Your task to perform on an android device: Set the phone to "Do not disturb". Image 0: 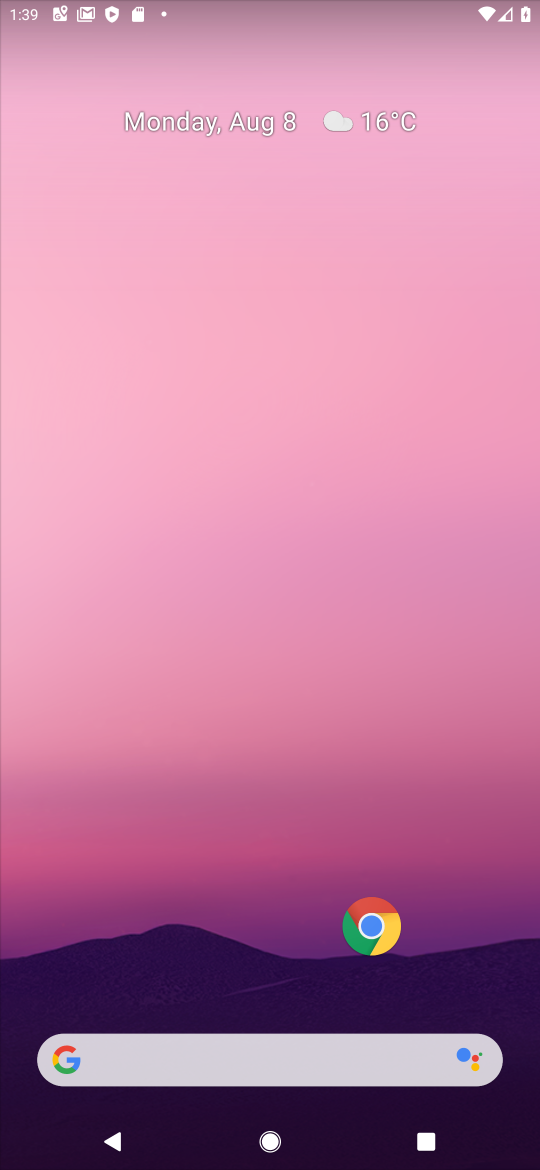
Step 0: drag from (265, 53) to (252, 872)
Your task to perform on an android device: Set the phone to "Do not disturb". Image 1: 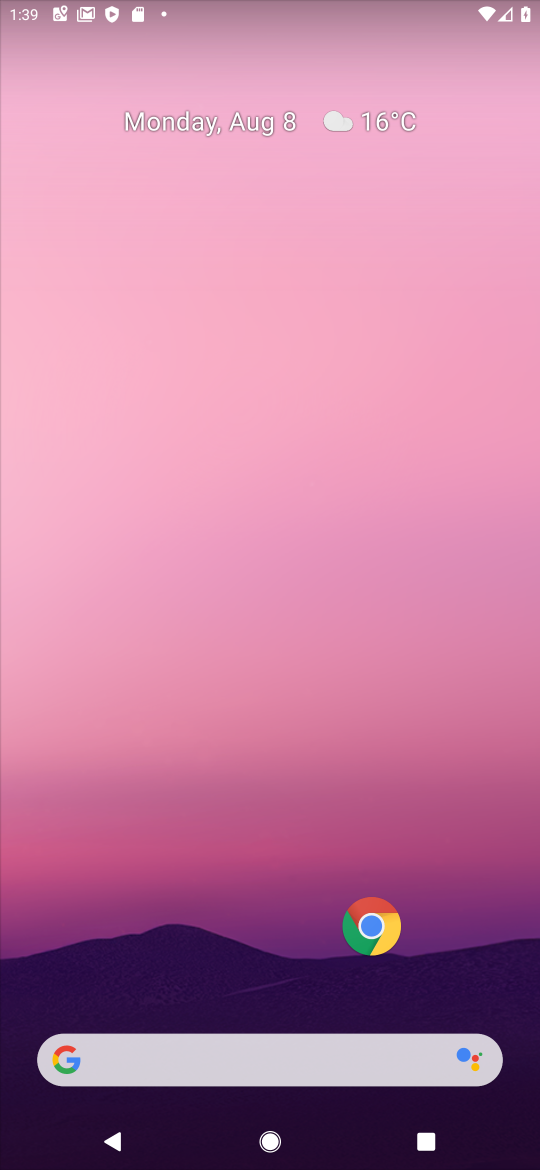
Step 1: drag from (236, 11) to (229, 648)
Your task to perform on an android device: Set the phone to "Do not disturb". Image 2: 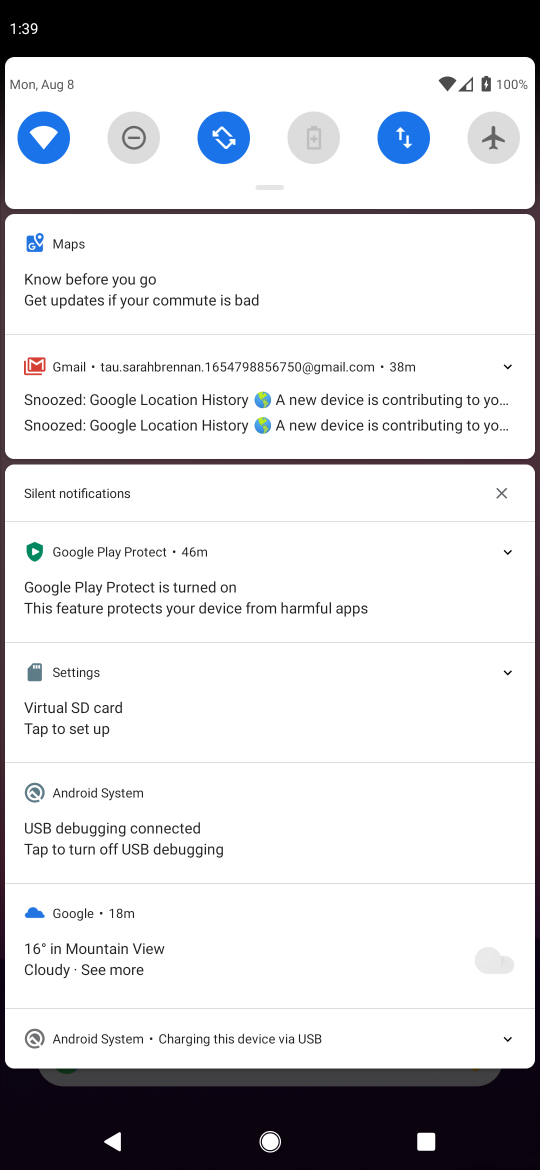
Step 2: click (140, 135)
Your task to perform on an android device: Set the phone to "Do not disturb". Image 3: 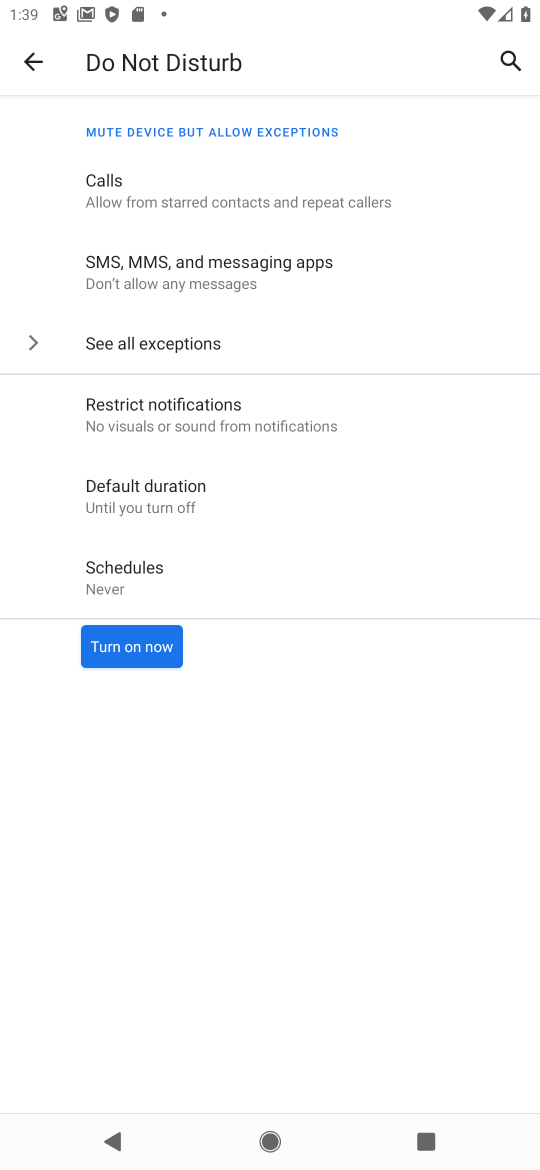
Step 3: click (113, 633)
Your task to perform on an android device: Set the phone to "Do not disturb". Image 4: 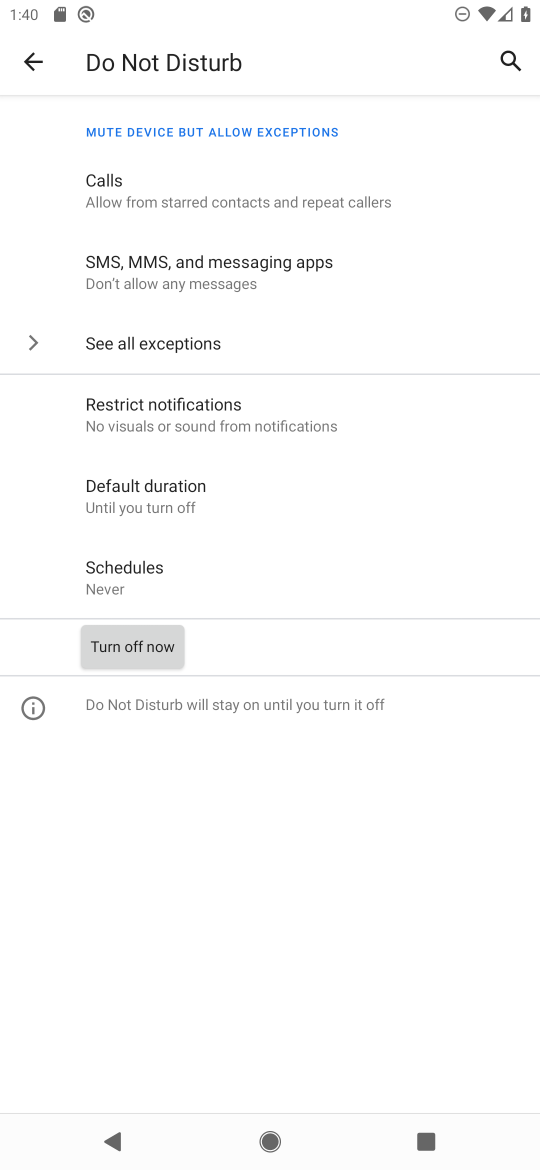
Step 4: task complete